Your task to perform on an android device: Is it going to rain this weekend? Image 0: 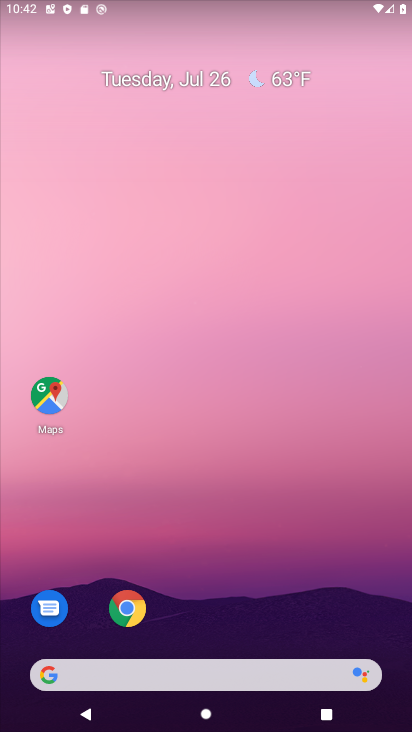
Step 0: press home button
Your task to perform on an android device: Is it going to rain this weekend? Image 1: 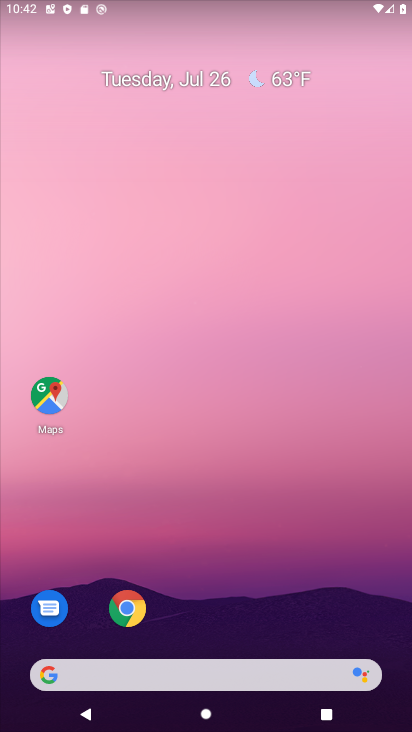
Step 1: click (53, 671)
Your task to perform on an android device: Is it going to rain this weekend? Image 2: 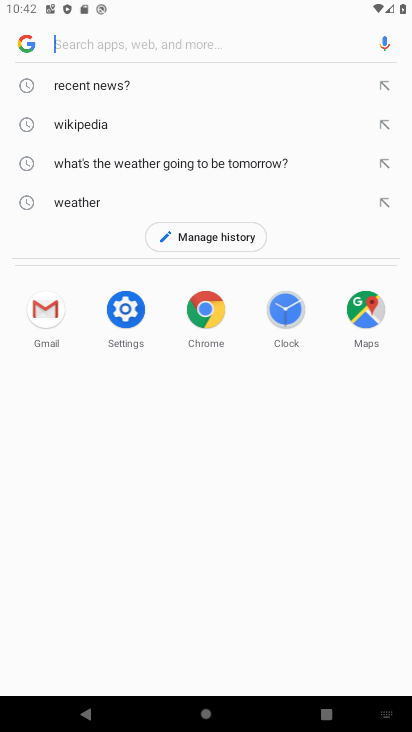
Step 2: type " rain this weekend?"
Your task to perform on an android device: Is it going to rain this weekend? Image 3: 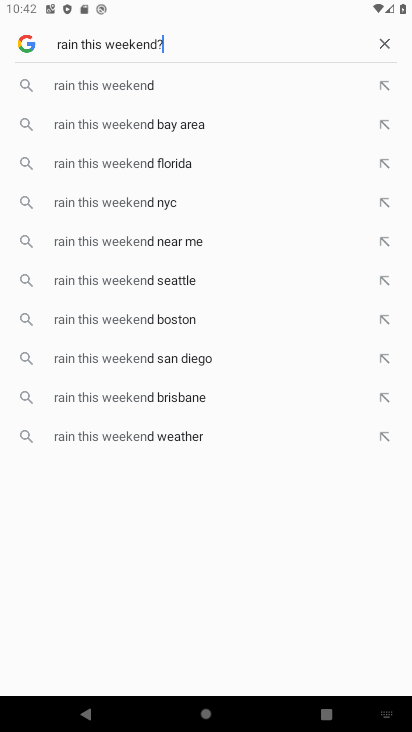
Step 3: press enter
Your task to perform on an android device: Is it going to rain this weekend? Image 4: 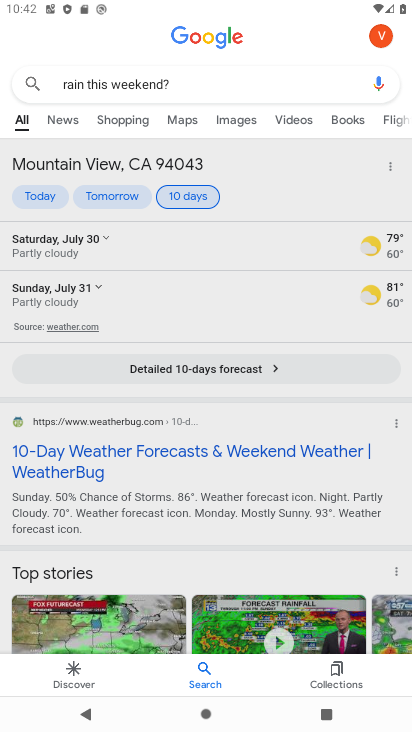
Step 4: task complete